Your task to perform on an android device: move a message to another label in the gmail app Image 0: 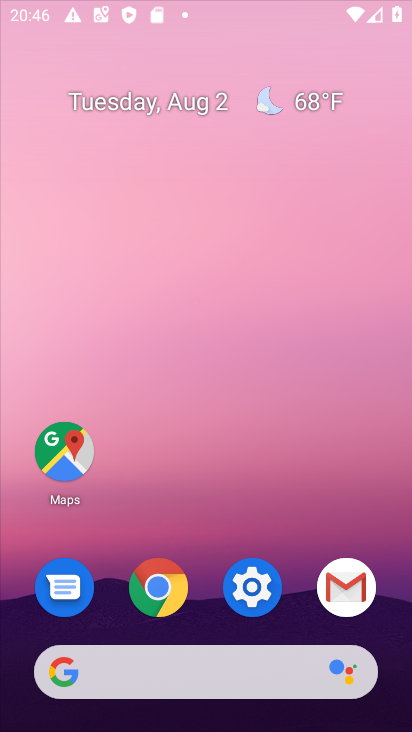
Step 0: press home button
Your task to perform on an android device: move a message to another label in the gmail app Image 1: 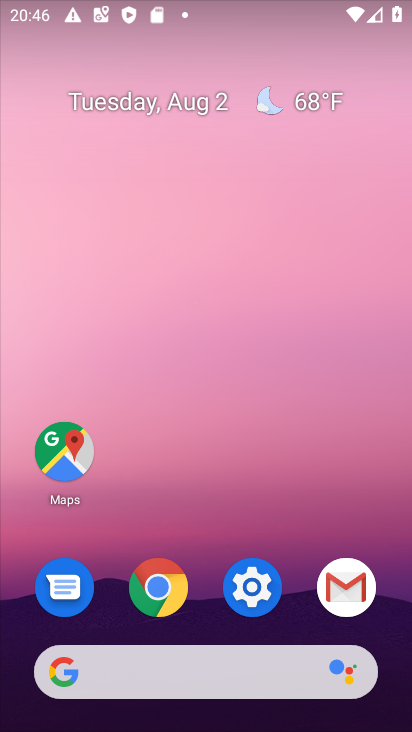
Step 1: click (352, 591)
Your task to perform on an android device: move a message to another label in the gmail app Image 2: 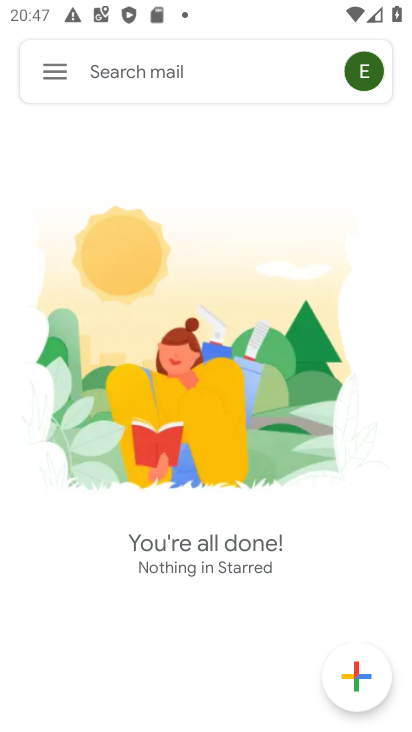
Step 2: click (60, 71)
Your task to perform on an android device: move a message to another label in the gmail app Image 3: 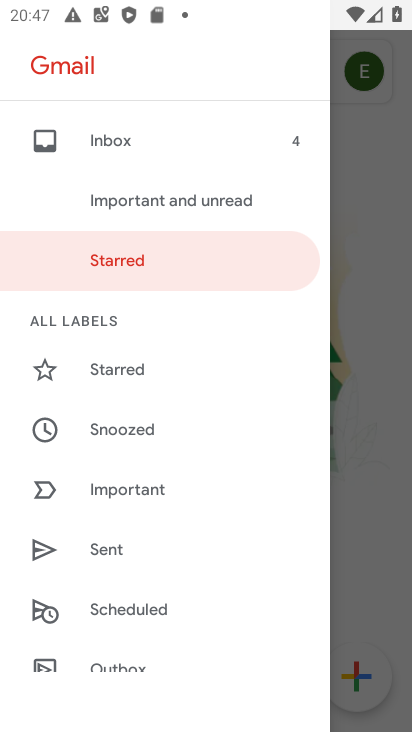
Step 3: drag from (154, 557) to (140, 282)
Your task to perform on an android device: move a message to another label in the gmail app Image 4: 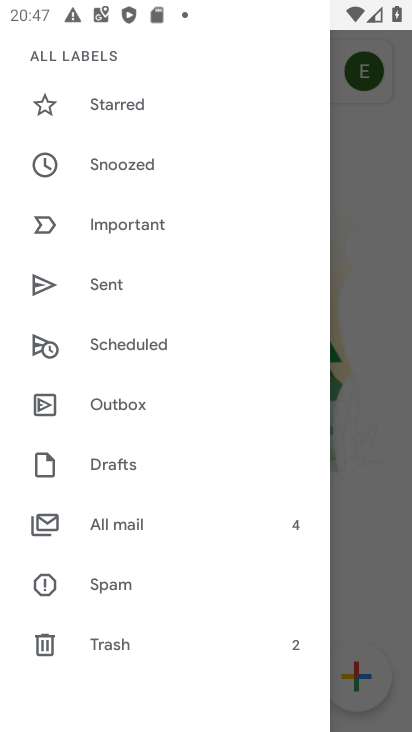
Step 4: drag from (150, 611) to (157, 444)
Your task to perform on an android device: move a message to another label in the gmail app Image 5: 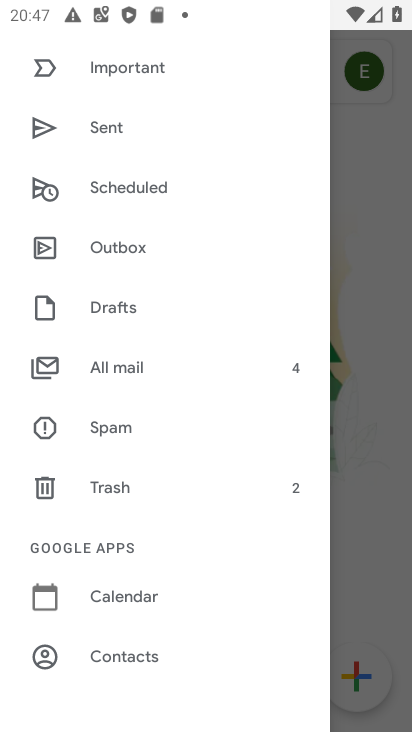
Step 5: click (410, 386)
Your task to perform on an android device: move a message to another label in the gmail app Image 6: 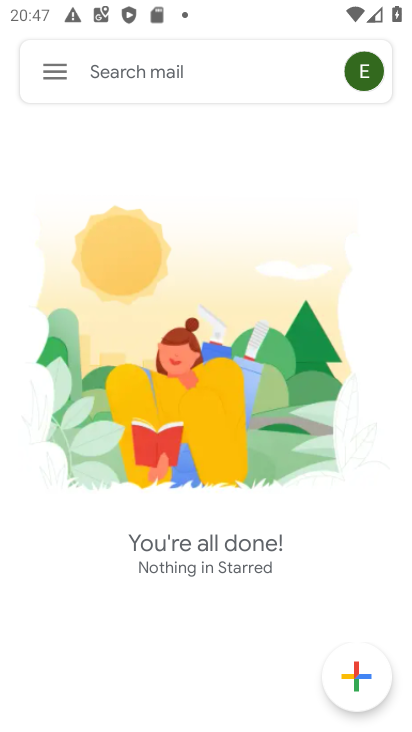
Step 6: click (64, 67)
Your task to perform on an android device: move a message to another label in the gmail app Image 7: 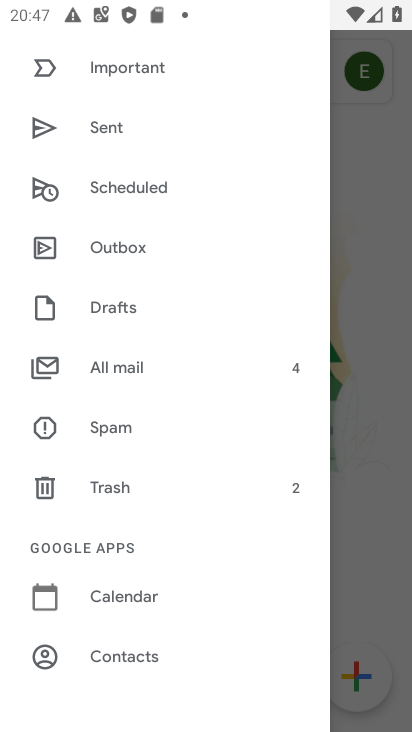
Step 7: click (120, 374)
Your task to perform on an android device: move a message to another label in the gmail app Image 8: 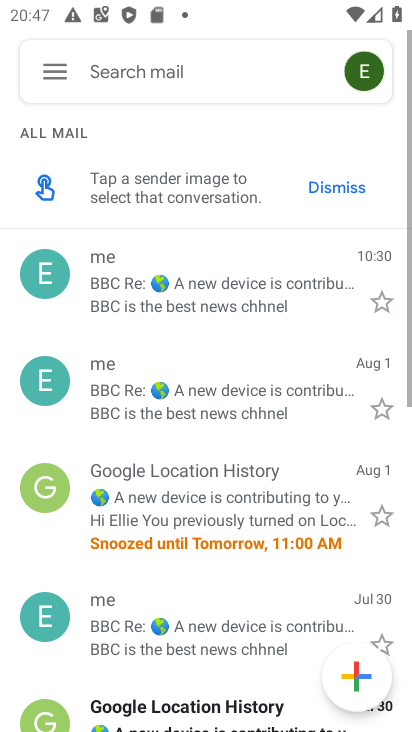
Step 8: click (231, 307)
Your task to perform on an android device: move a message to another label in the gmail app Image 9: 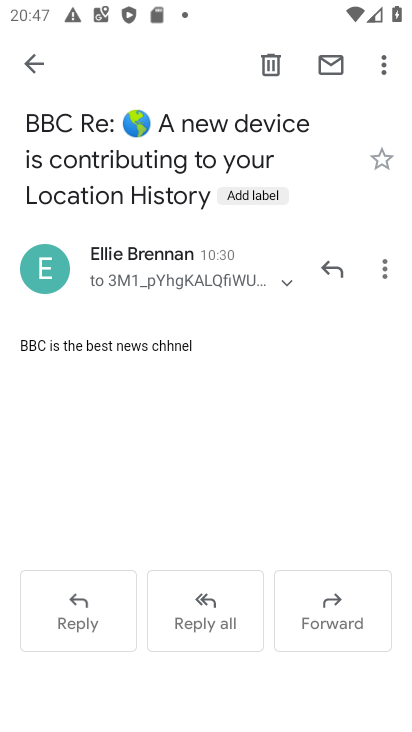
Step 9: click (390, 63)
Your task to perform on an android device: move a message to another label in the gmail app Image 10: 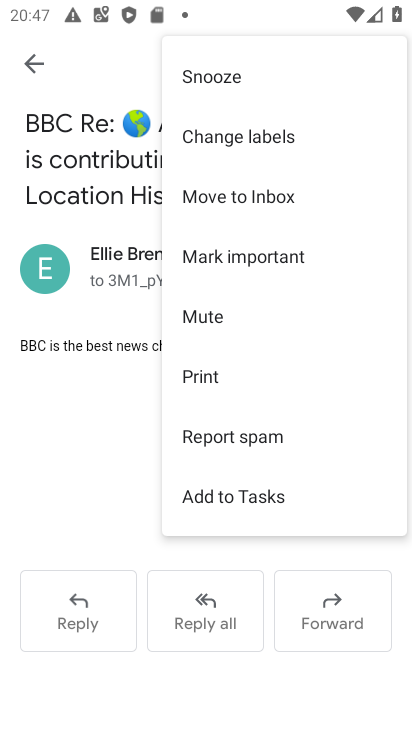
Step 10: click (239, 158)
Your task to perform on an android device: move a message to another label in the gmail app Image 11: 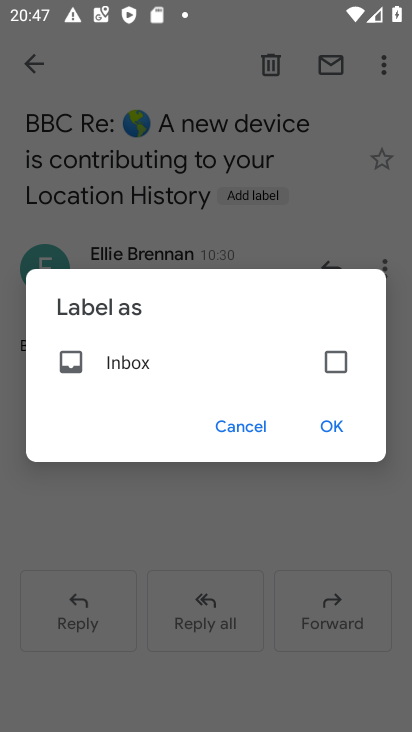
Step 11: click (330, 363)
Your task to perform on an android device: move a message to another label in the gmail app Image 12: 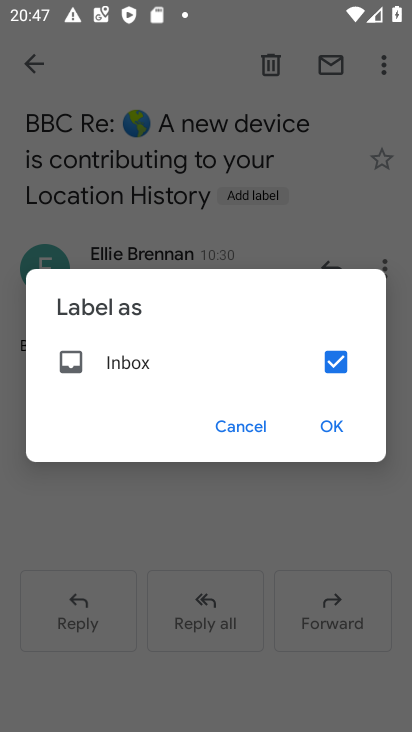
Step 12: click (332, 429)
Your task to perform on an android device: move a message to another label in the gmail app Image 13: 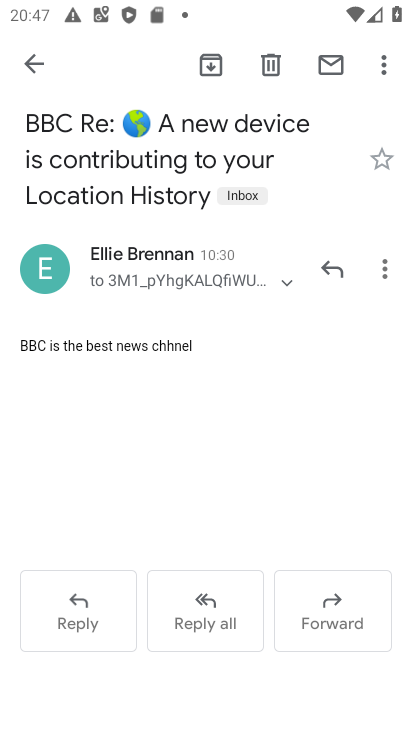
Step 13: task complete